Your task to perform on an android device: turn off translation in the chrome app Image 0: 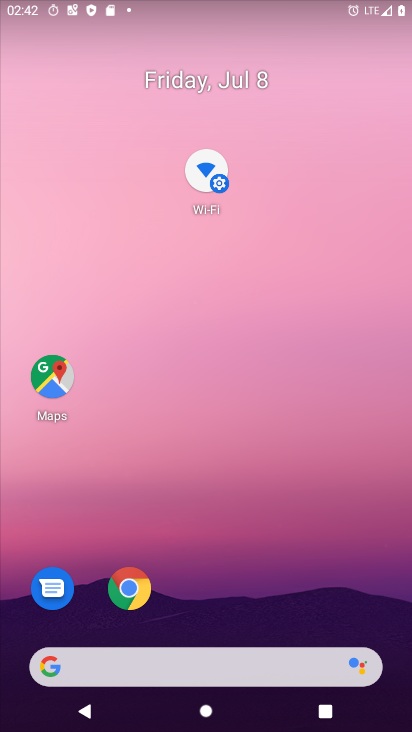
Step 0: drag from (194, 505) to (244, 126)
Your task to perform on an android device: turn off translation in the chrome app Image 1: 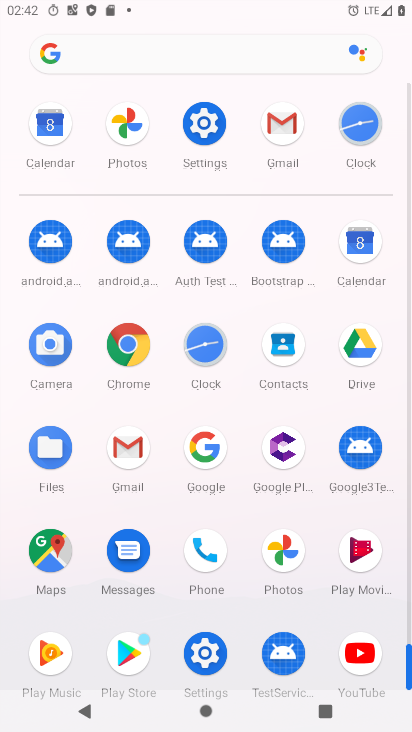
Step 1: click (117, 325)
Your task to perform on an android device: turn off translation in the chrome app Image 2: 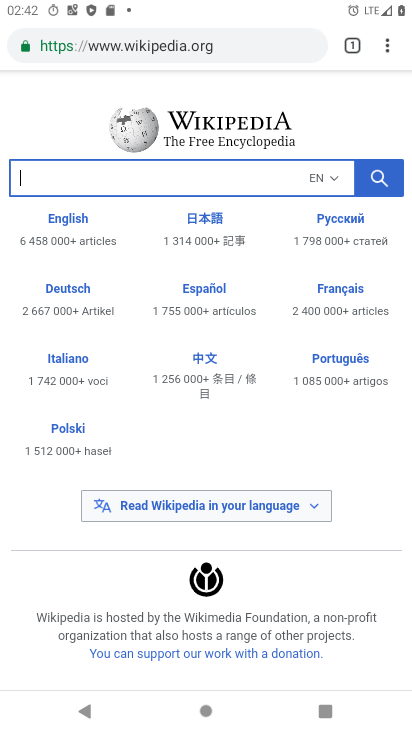
Step 2: drag from (297, 140) to (304, 457)
Your task to perform on an android device: turn off translation in the chrome app Image 3: 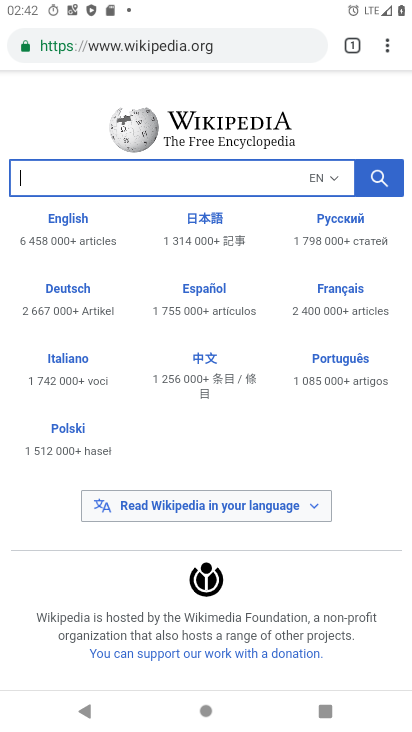
Step 3: click (388, 45)
Your task to perform on an android device: turn off translation in the chrome app Image 4: 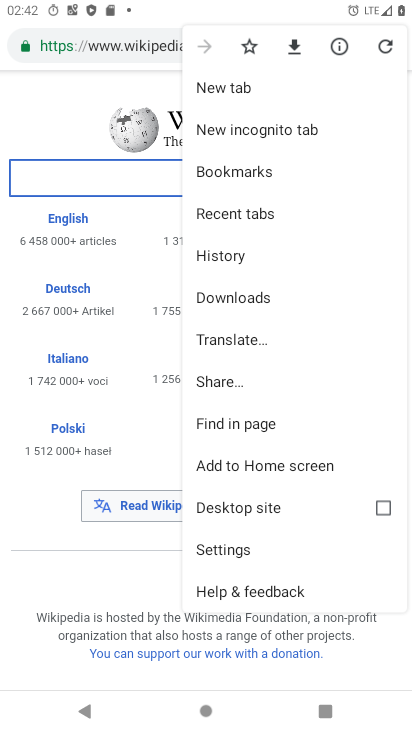
Step 4: click (229, 542)
Your task to perform on an android device: turn off translation in the chrome app Image 5: 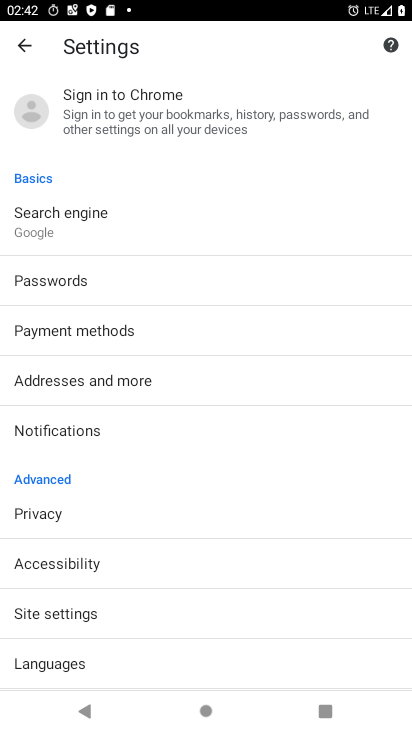
Step 5: drag from (213, 625) to (305, 254)
Your task to perform on an android device: turn off translation in the chrome app Image 6: 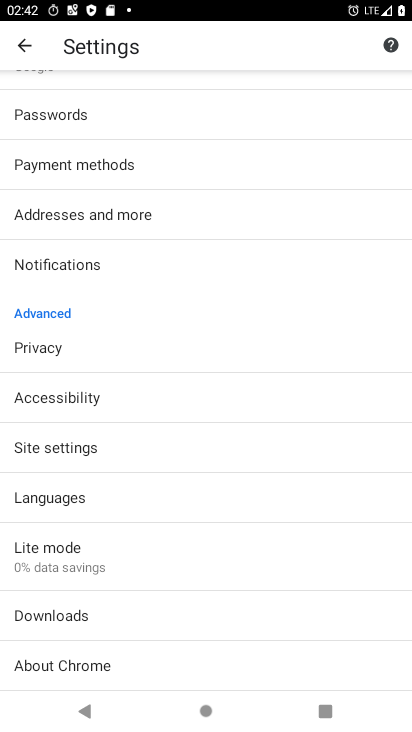
Step 6: drag from (164, 642) to (257, 224)
Your task to perform on an android device: turn off translation in the chrome app Image 7: 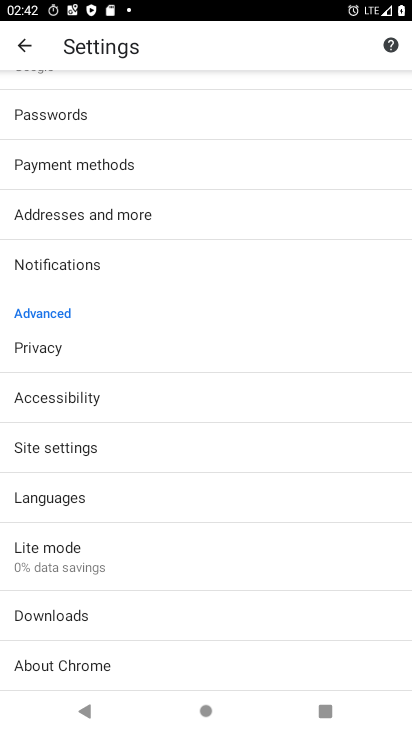
Step 7: click (96, 454)
Your task to perform on an android device: turn off translation in the chrome app Image 8: 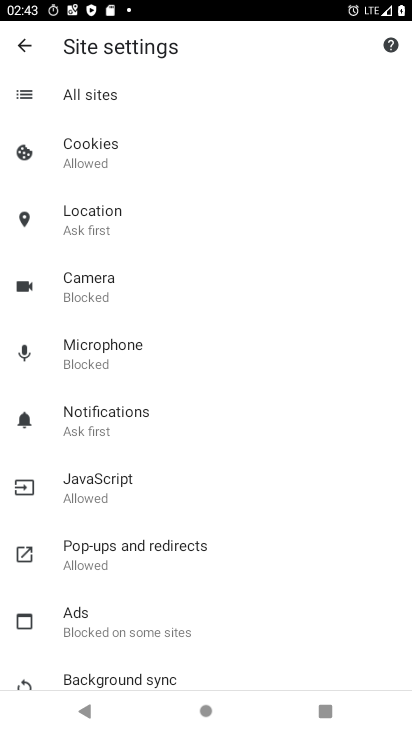
Step 8: drag from (207, 649) to (266, 439)
Your task to perform on an android device: turn off translation in the chrome app Image 9: 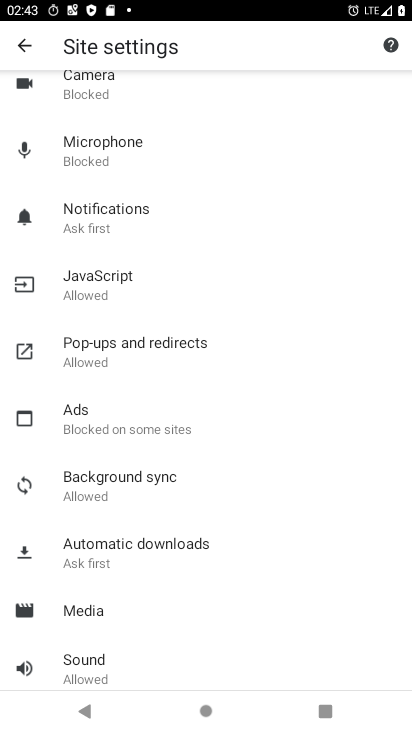
Step 9: drag from (183, 611) to (225, 393)
Your task to perform on an android device: turn off translation in the chrome app Image 10: 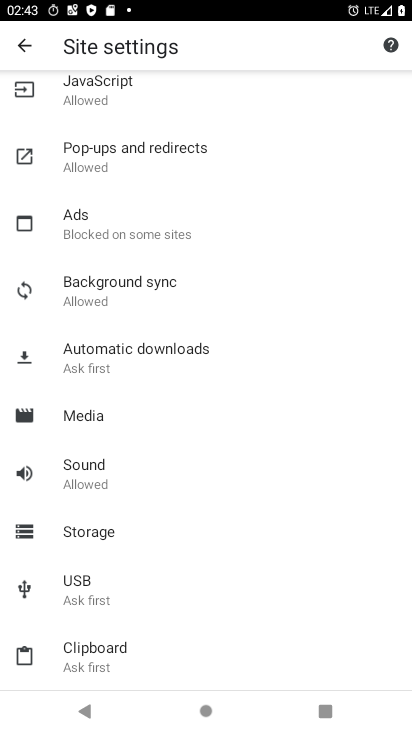
Step 10: drag from (227, 572) to (241, 323)
Your task to perform on an android device: turn off translation in the chrome app Image 11: 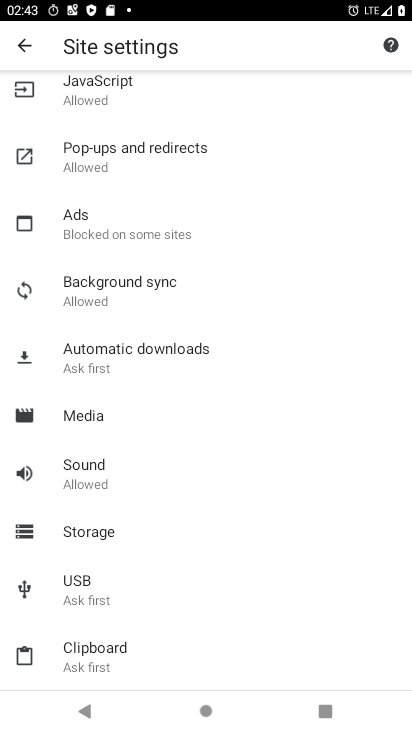
Step 11: drag from (235, 569) to (249, 486)
Your task to perform on an android device: turn off translation in the chrome app Image 12: 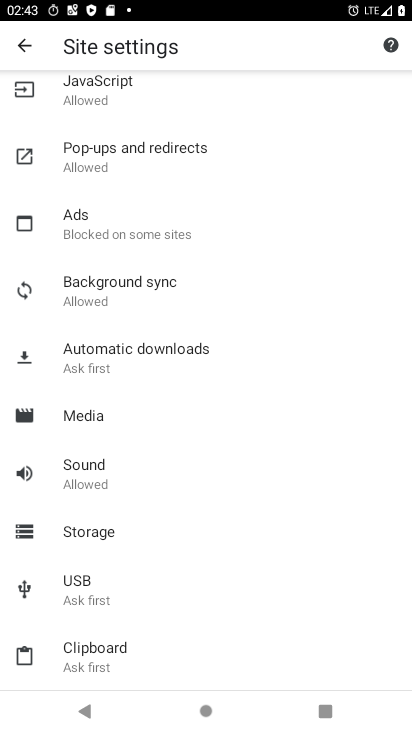
Step 12: drag from (168, 663) to (267, 176)
Your task to perform on an android device: turn off translation in the chrome app Image 13: 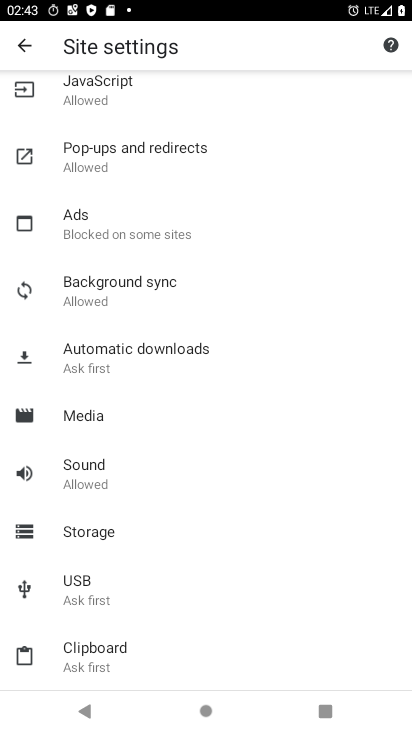
Step 13: drag from (177, 543) to (246, 229)
Your task to perform on an android device: turn off translation in the chrome app Image 14: 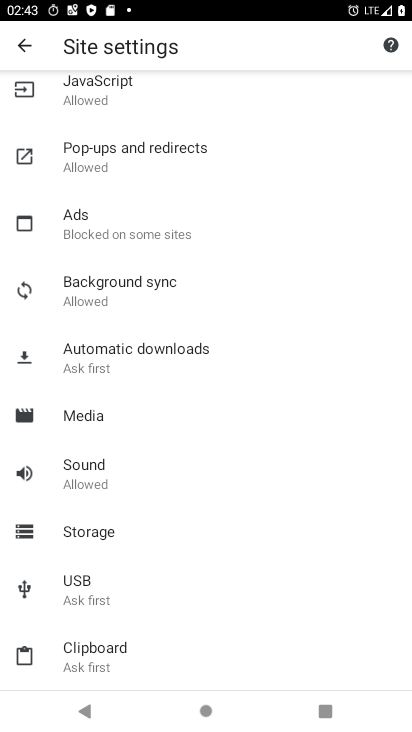
Step 14: drag from (161, 677) to (190, 334)
Your task to perform on an android device: turn off translation in the chrome app Image 15: 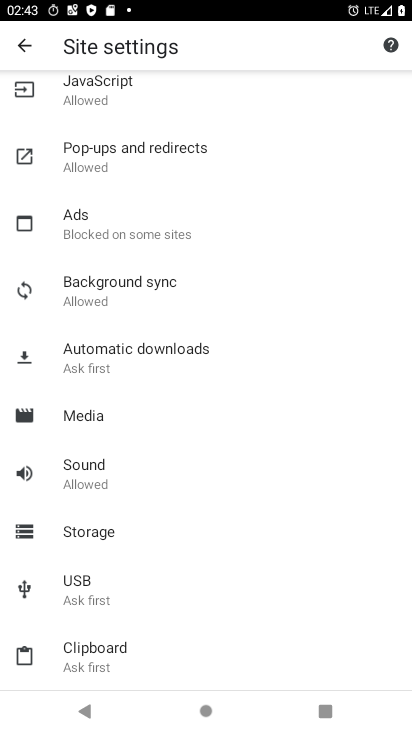
Step 15: drag from (251, 572) to (281, 330)
Your task to perform on an android device: turn off translation in the chrome app Image 16: 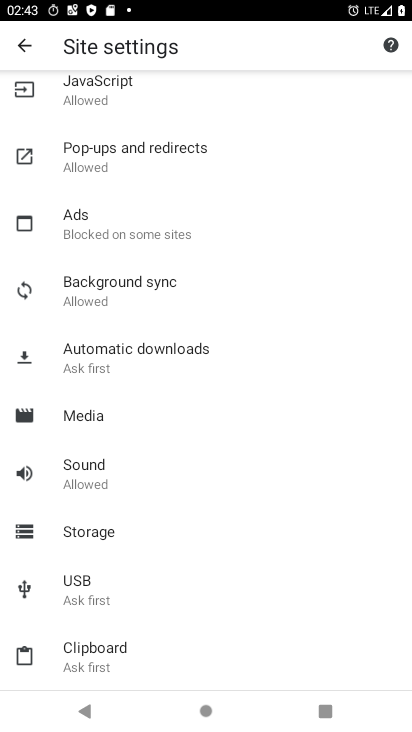
Step 16: drag from (97, 602) to (237, 241)
Your task to perform on an android device: turn off translation in the chrome app Image 17: 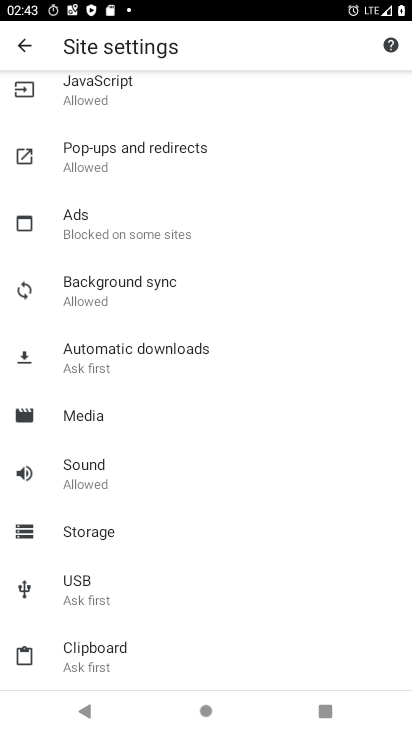
Step 17: drag from (184, 597) to (235, 367)
Your task to perform on an android device: turn off translation in the chrome app Image 18: 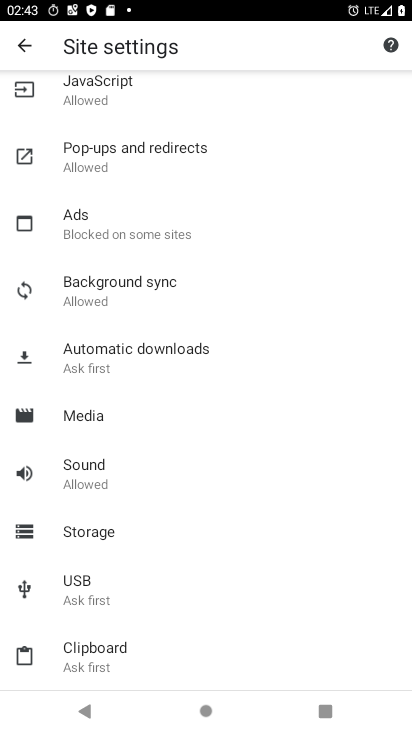
Step 18: click (33, 38)
Your task to perform on an android device: turn off translation in the chrome app Image 19: 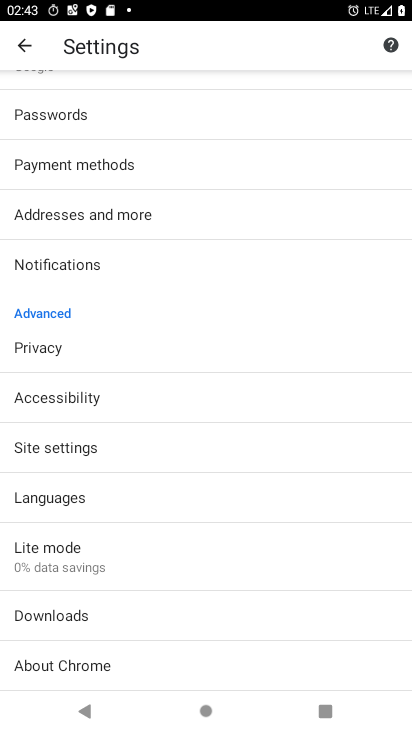
Step 19: click (107, 500)
Your task to perform on an android device: turn off translation in the chrome app Image 20: 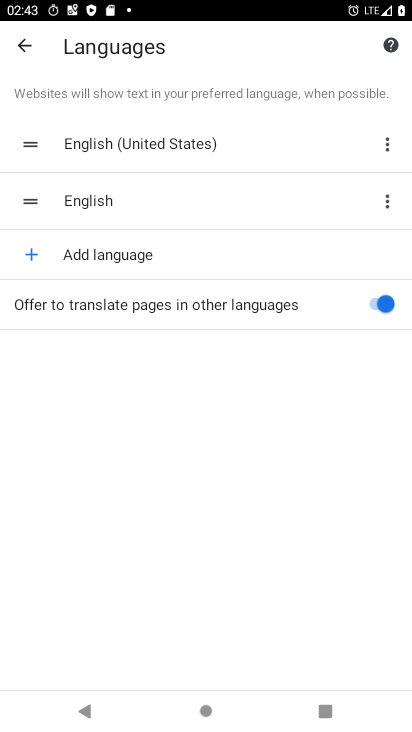
Step 20: click (375, 305)
Your task to perform on an android device: turn off translation in the chrome app Image 21: 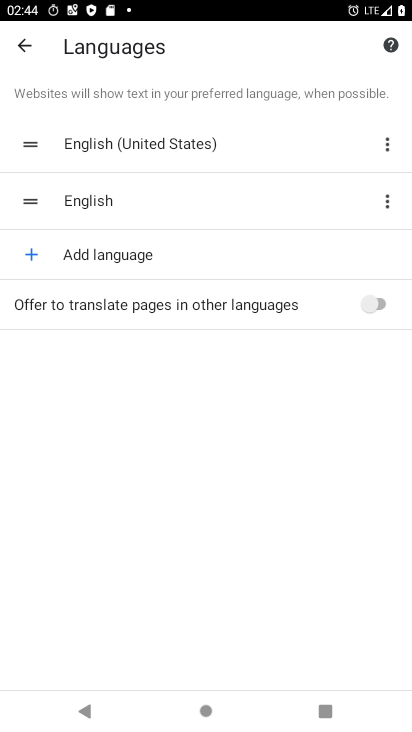
Step 21: task complete